Your task to perform on an android device: clear history in the chrome app Image 0: 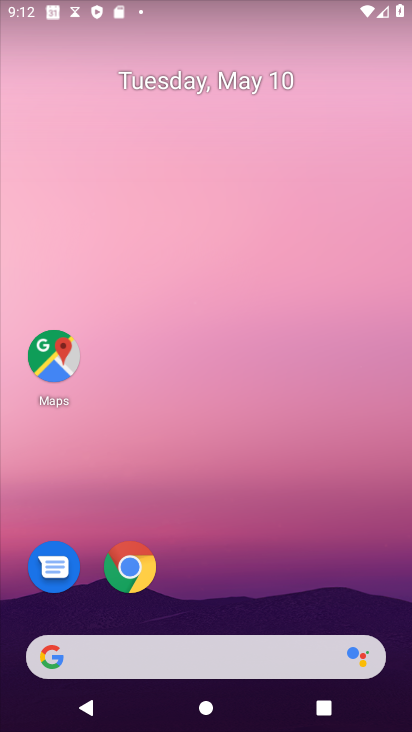
Step 0: press home button
Your task to perform on an android device: clear history in the chrome app Image 1: 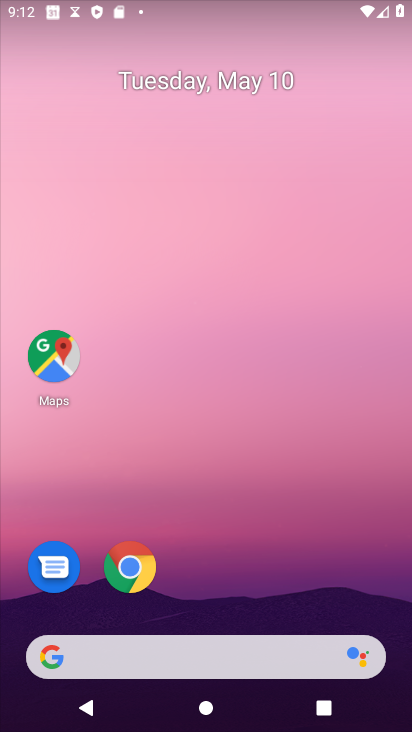
Step 1: click (123, 568)
Your task to perform on an android device: clear history in the chrome app Image 2: 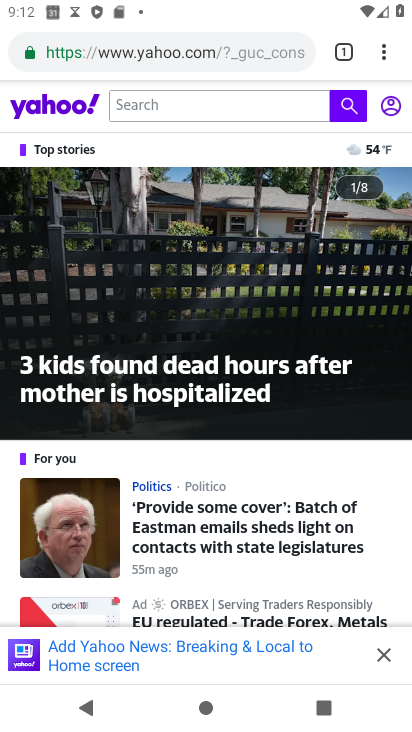
Step 2: click (373, 49)
Your task to perform on an android device: clear history in the chrome app Image 3: 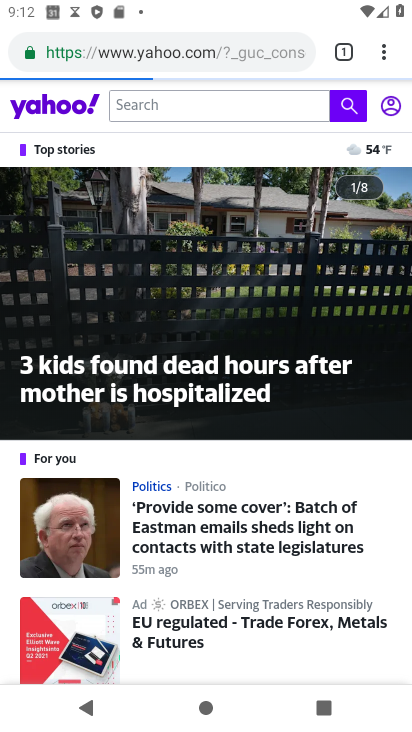
Step 3: click (382, 52)
Your task to perform on an android device: clear history in the chrome app Image 4: 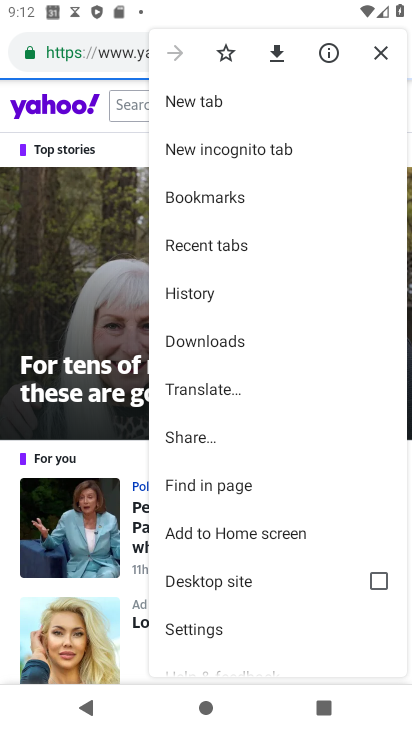
Step 4: click (204, 294)
Your task to perform on an android device: clear history in the chrome app Image 5: 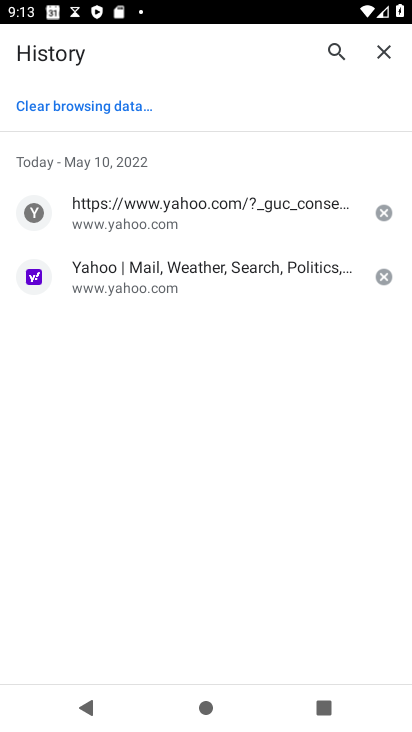
Step 5: click (97, 105)
Your task to perform on an android device: clear history in the chrome app Image 6: 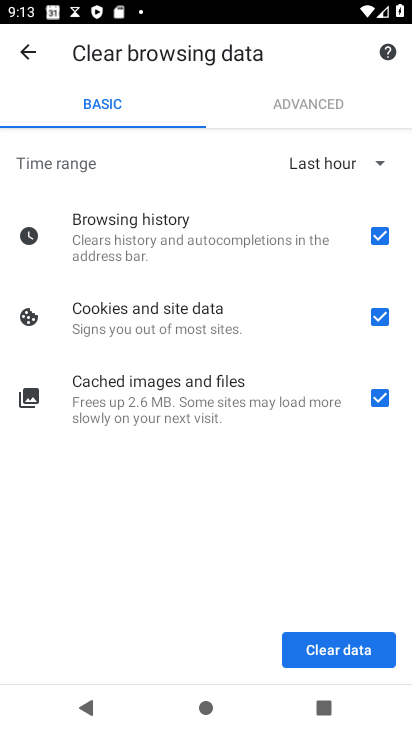
Step 6: click (359, 651)
Your task to perform on an android device: clear history in the chrome app Image 7: 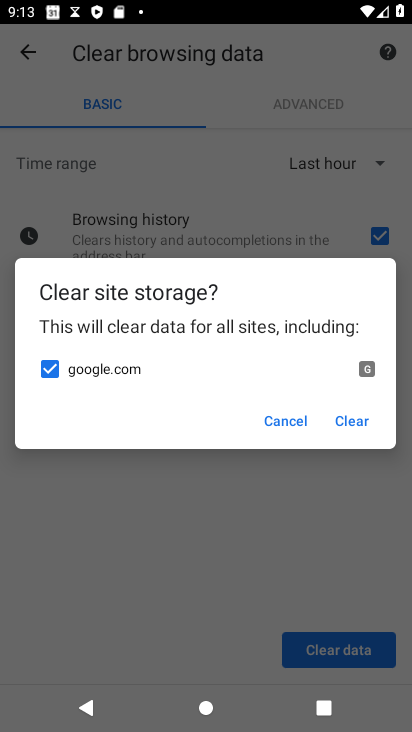
Step 7: click (330, 431)
Your task to perform on an android device: clear history in the chrome app Image 8: 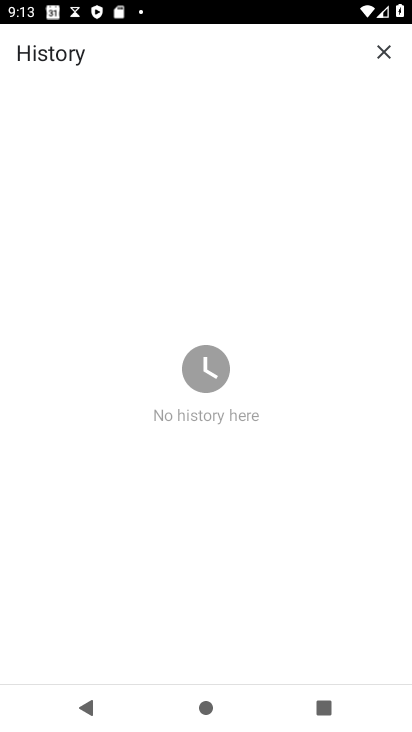
Step 8: task complete